Your task to perform on an android device: toggle location history Image 0: 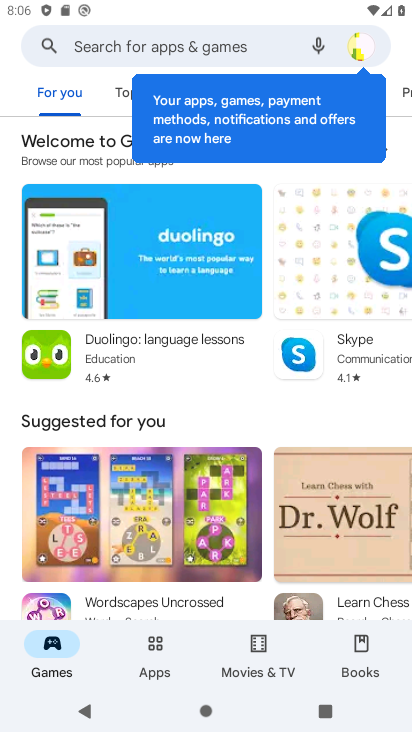
Step 0: press home button
Your task to perform on an android device: toggle location history Image 1: 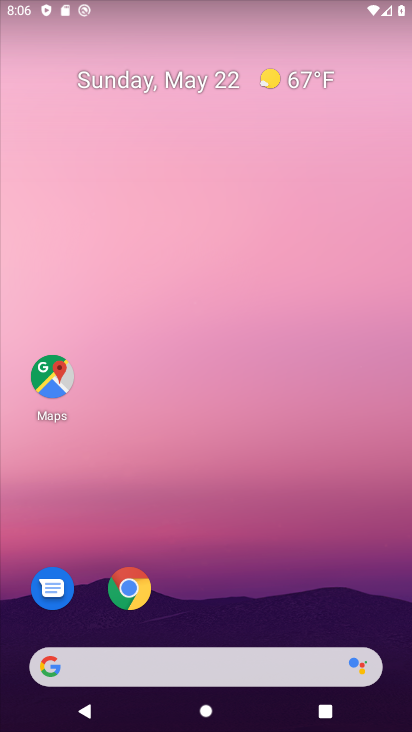
Step 1: drag from (217, 605) to (224, 110)
Your task to perform on an android device: toggle location history Image 2: 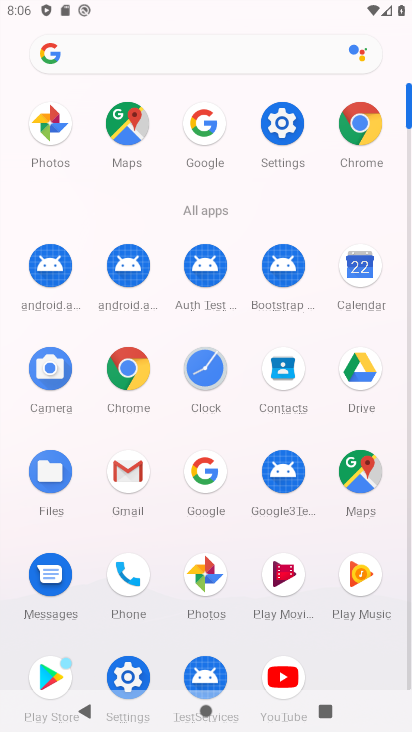
Step 2: click (263, 117)
Your task to perform on an android device: toggle location history Image 3: 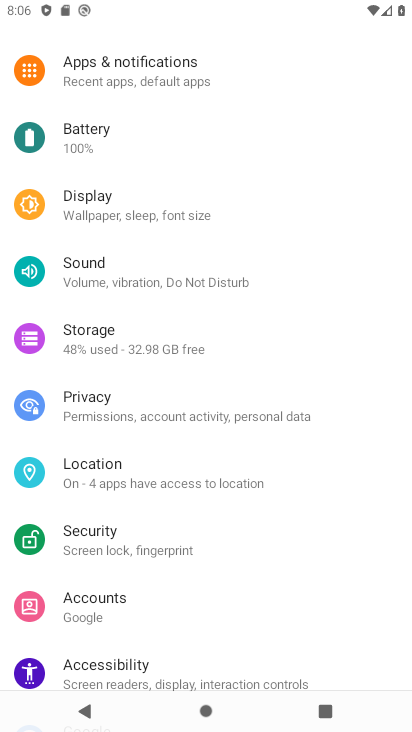
Step 3: click (148, 470)
Your task to perform on an android device: toggle location history Image 4: 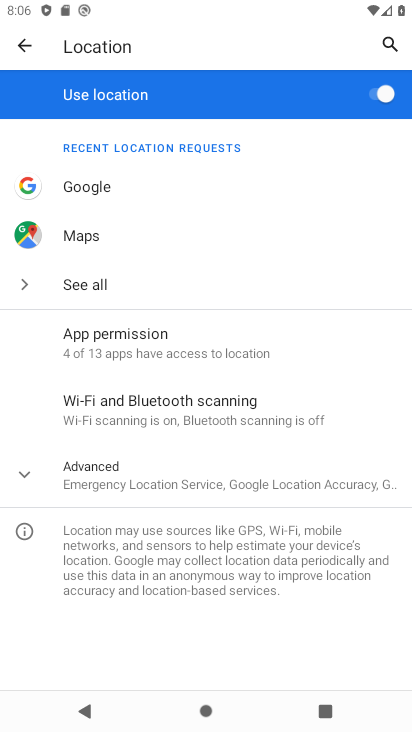
Step 4: click (148, 470)
Your task to perform on an android device: toggle location history Image 5: 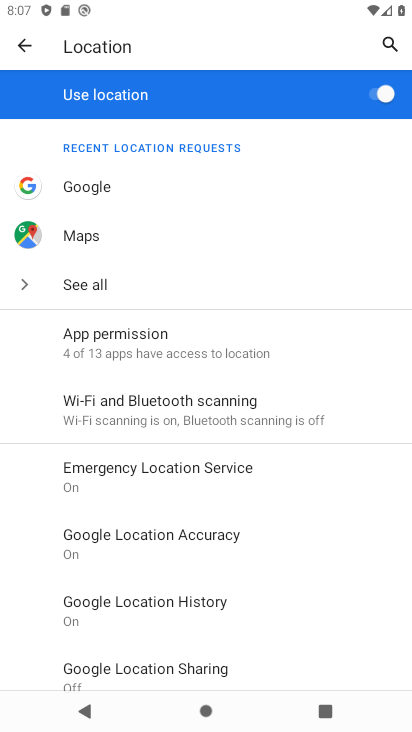
Step 5: click (181, 587)
Your task to perform on an android device: toggle location history Image 6: 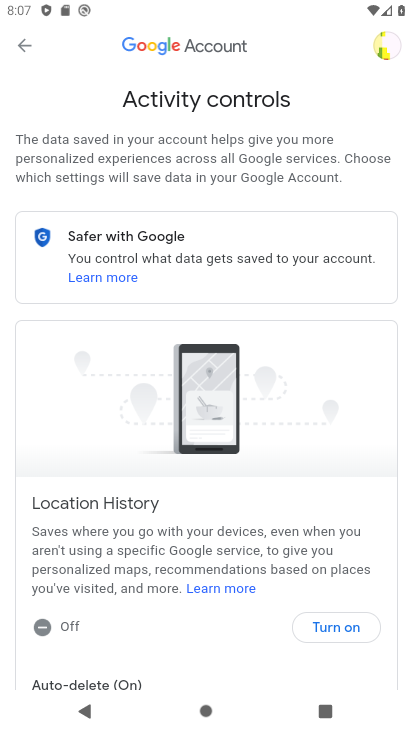
Step 6: click (331, 629)
Your task to perform on an android device: toggle location history Image 7: 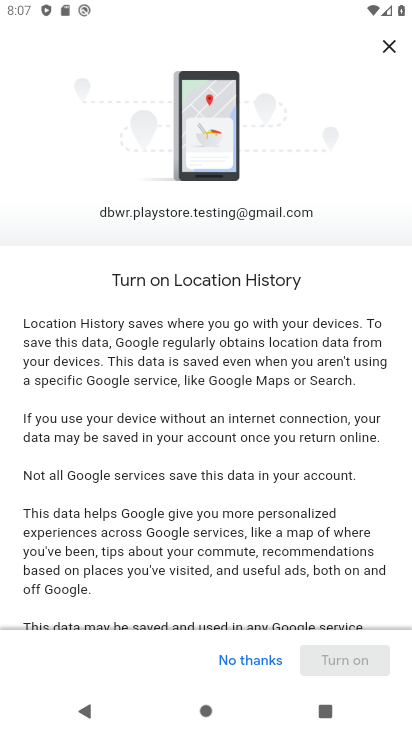
Step 7: drag from (308, 514) to (305, 153)
Your task to perform on an android device: toggle location history Image 8: 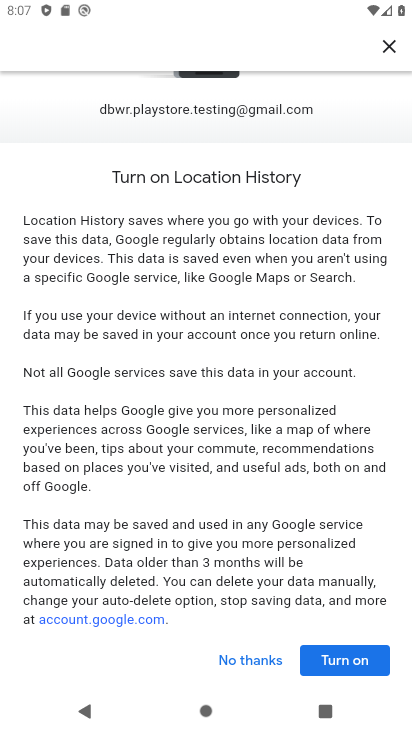
Step 8: drag from (264, 542) to (277, 150)
Your task to perform on an android device: toggle location history Image 9: 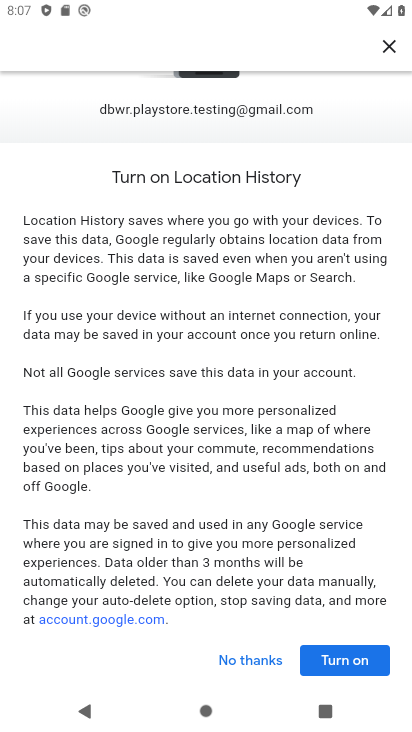
Step 9: click (340, 659)
Your task to perform on an android device: toggle location history Image 10: 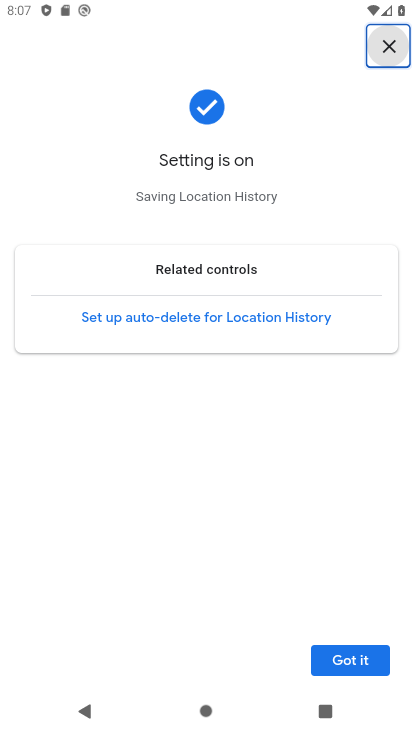
Step 10: task complete